Your task to perform on an android device: Open calendar and show me the second week of next month Image 0: 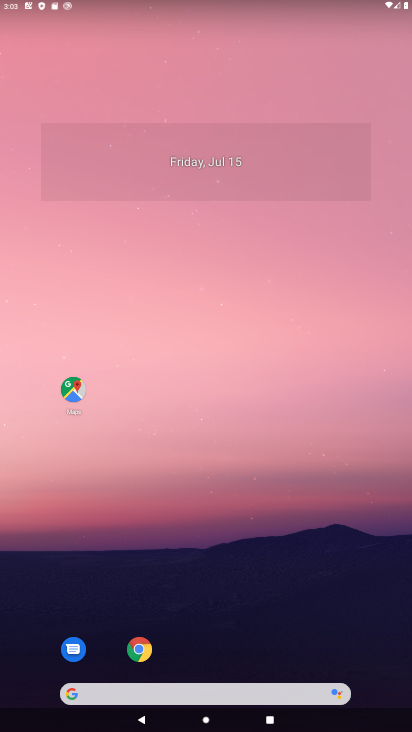
Step 0: drag from (308, 610) to (287, 6)
Your task to perform on an android device: Open calendar and show me the second week of next month Image 1: 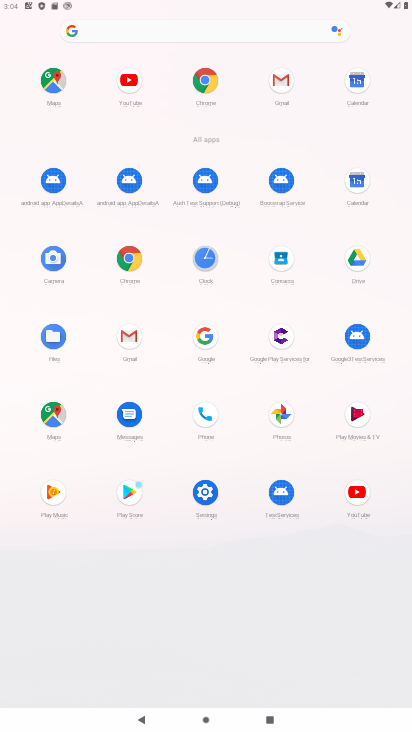
Step 1: click (355, 182)
Your task to perform on an android device: Open calendar and show me the second week of next month Image 2: 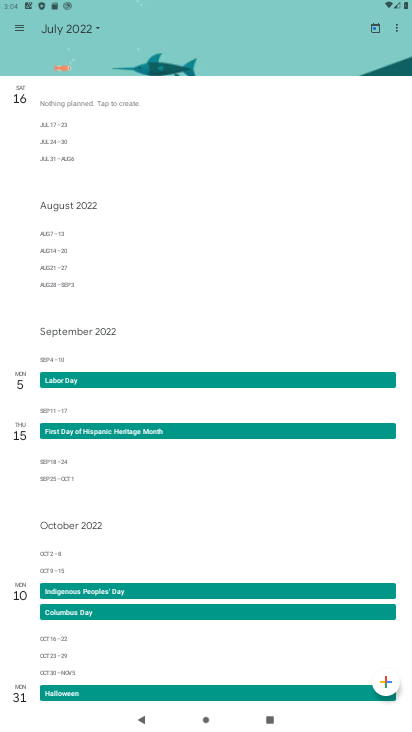
Step 2: click (93, 29)
Your task to perform on an android device: Open calendar and show me the second week of next month Image 3: 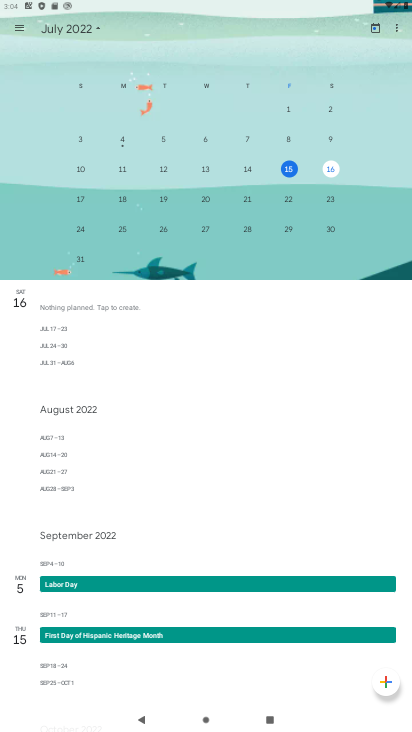
Step 3: drag from (330, 190) to (64, 186)
Your task to perform on an android device: Open calendar and show me the second week of next month Image 4: 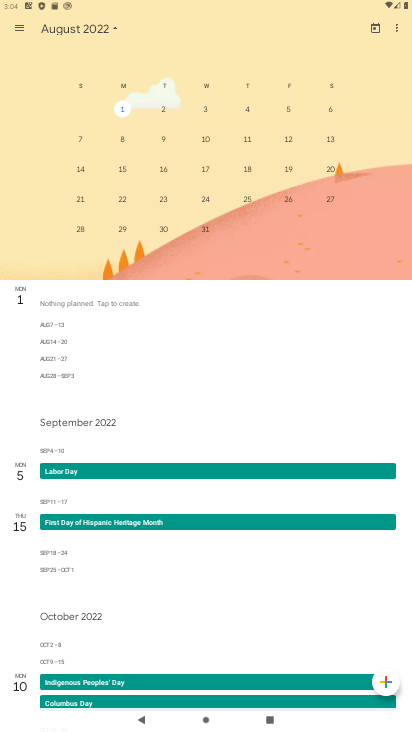
Step 4: click (168, 137)
Your task to perform on an android device: Open calendar and show me the second week of next month Image 5: 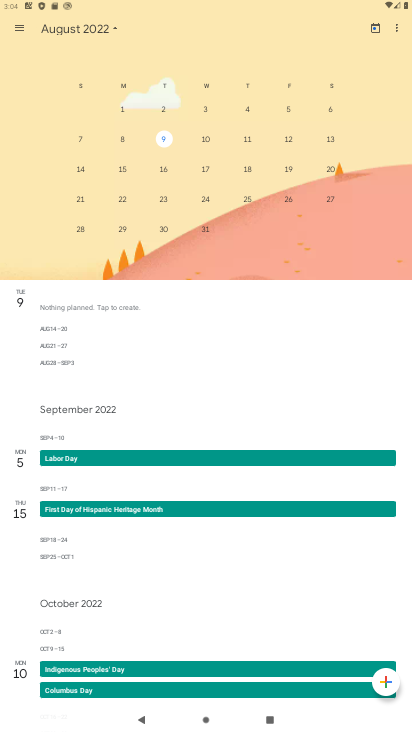
Step 5: click (22, 29)
Your task to perform on an android device: Open calendar and show me the second week of next month Image 6: 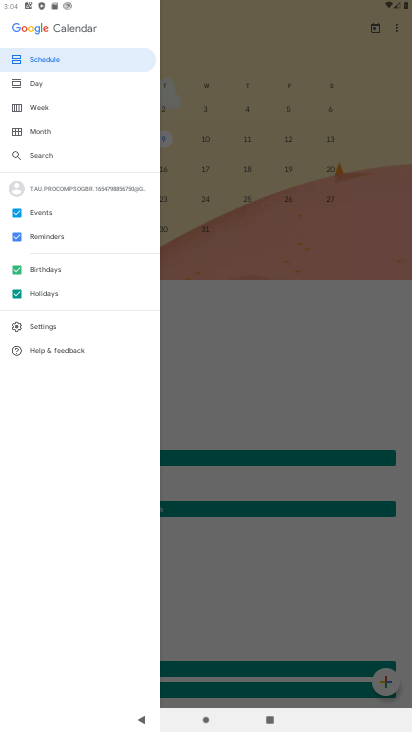
Step 6: click (38, 106)
Your task to perform on an android device: Open calendar and show me the second week of next month Image 7: 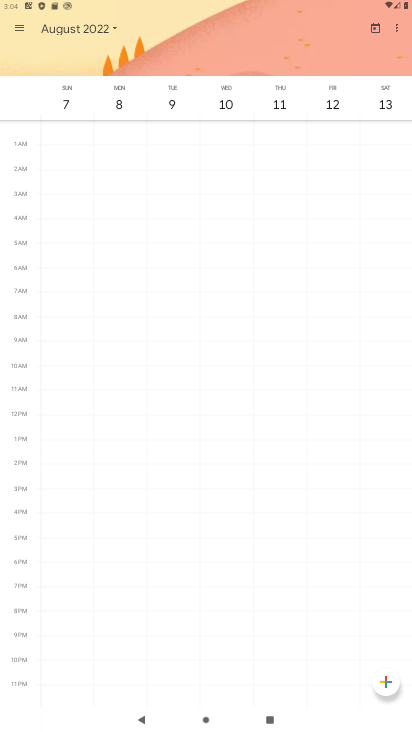
Step 7: task complete